Your task to perform on an android device: Open Chrome and go to the settings page Image 0: 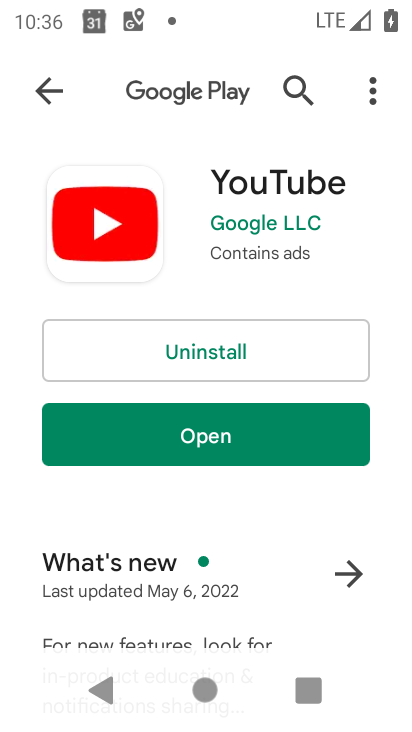
Step 0: press home button
Your task to perform on an android device: Open Chrome and go to the settings page Image 1: 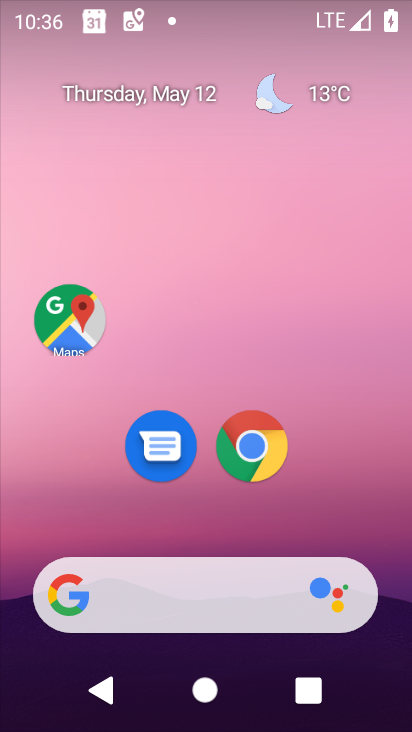
Step 1: drag from (227, 558) to (324, 8)
Your task to perform on an android device: Open Chrome and go to the settings page Image 2: 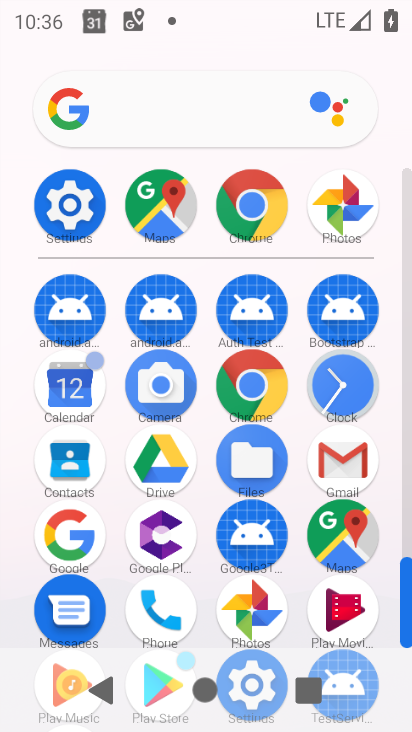
Step 2: click (81, 218)
Your task to perform on an android device: Open Chrome and go to the settings page Image 3: 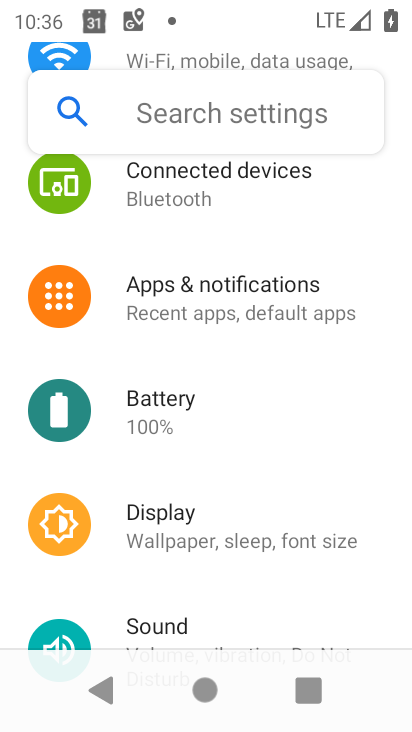
Step 3: press home button
Your task to perform on an android device: Open Chrome and go to the settings page Image 4: 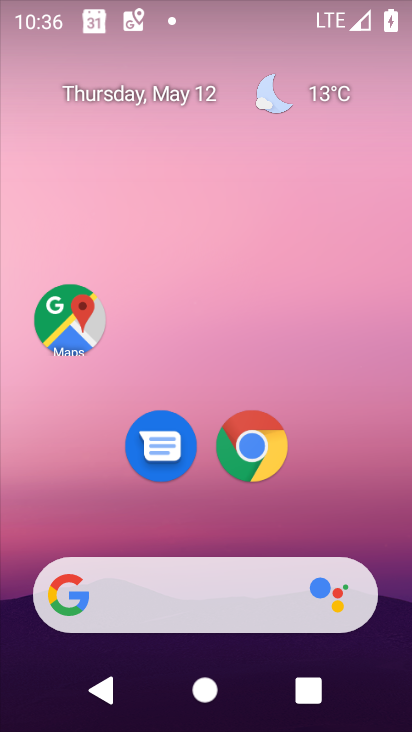
Step 4: drag from (252, 557) to (267, 13)
Your task to perform on an android device: Open Chrome and go to the settings page Image 5: 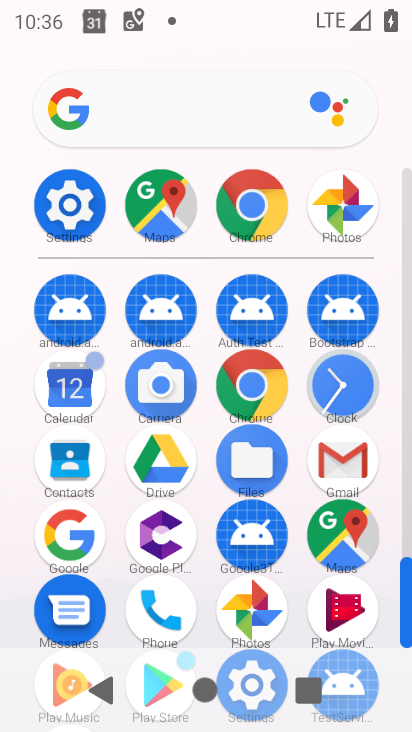
Step 5: click (240, 380)
Your task to perform on an android device: Open Chrome and go to the settings page Image 6: 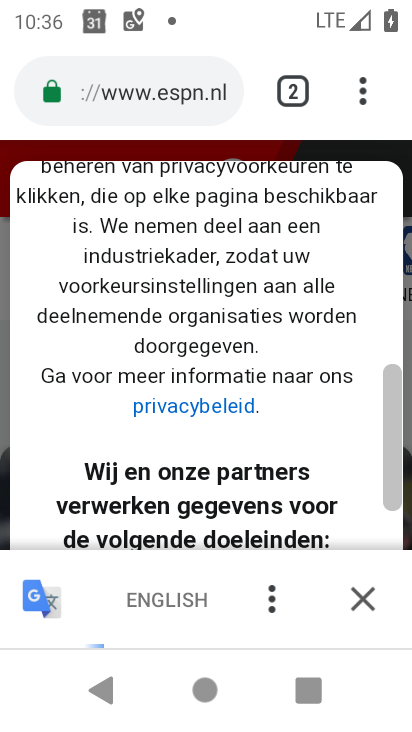
Step 6: task complete